Your task to perform on an android device: When is my next appointment? Image 0: 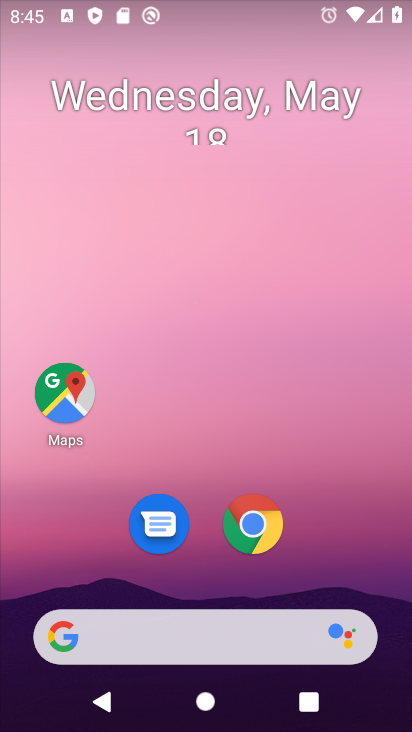
Step 0: drag from (312, 460) to (221, 44)
Your task to perform on an android device: When is my next appointment? Image 1: 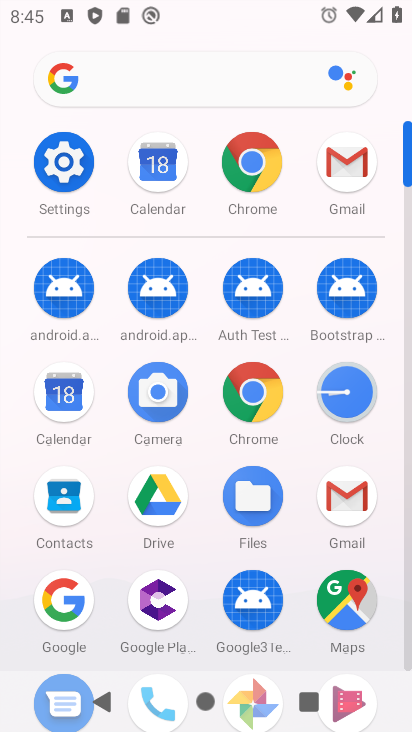
Step 1: click (156, 155)
Your task to perform on an android device: When is my next appointment? Image 2: 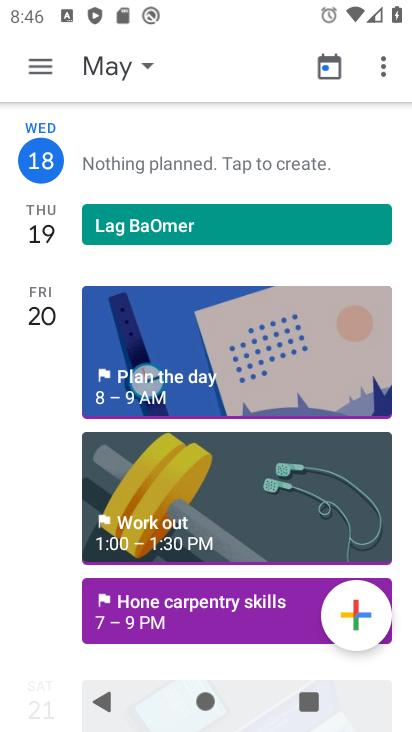
Step 2: task complete